Your task to perform on an android device: Open Reddit.com Image 0: 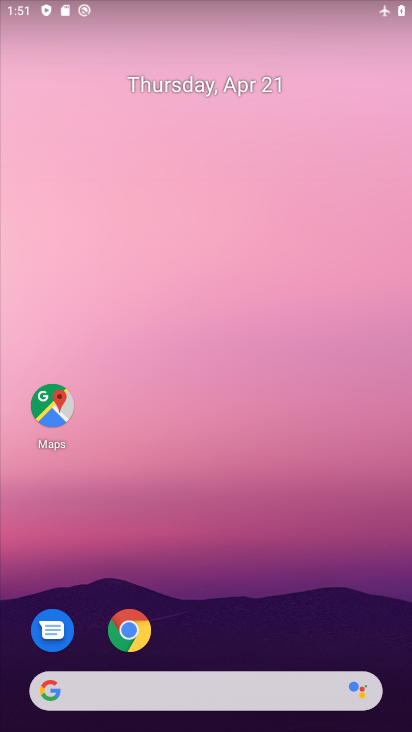
Step 0: click (137, 635)
Your task to perform on an android device: Open Reddit.com Image 1: 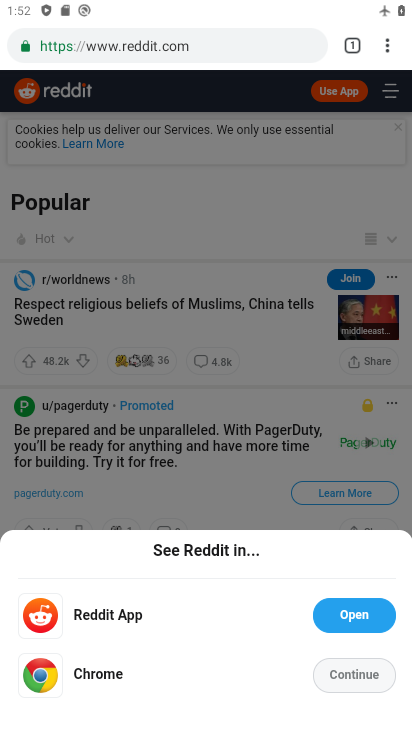
Step 1: task complete